Your task to perform on an android device: When is my next meeting? Image 0: 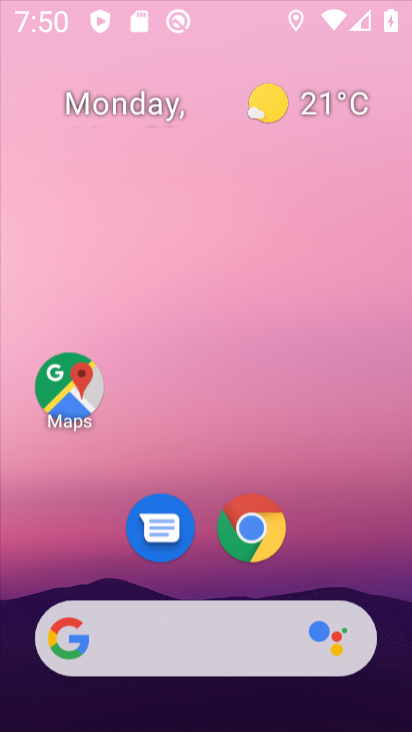
Step 0: click (306, 457)
Your task to perform on an android device: When is my next meeting? Image 1: 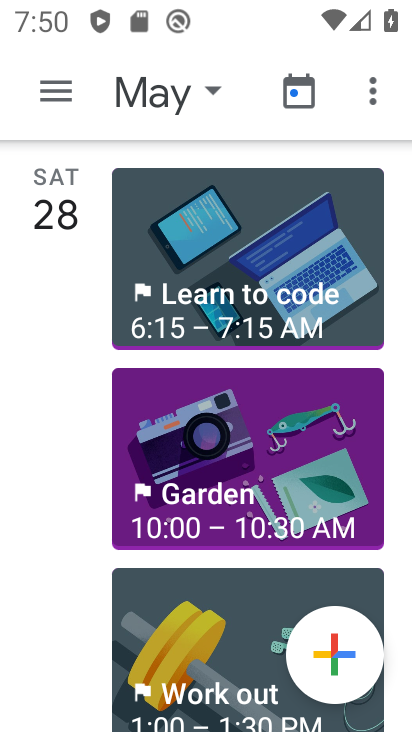
Step 1: click (134, 106)
Your task to perform on an android device: When is my next meeting? Image 2: 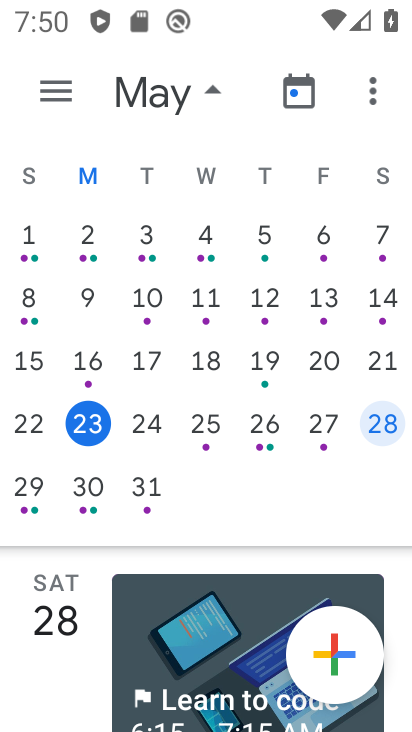
Step 2: click (95, 434)
Your task to perform on an android device: When is my next meeting? Image 3: 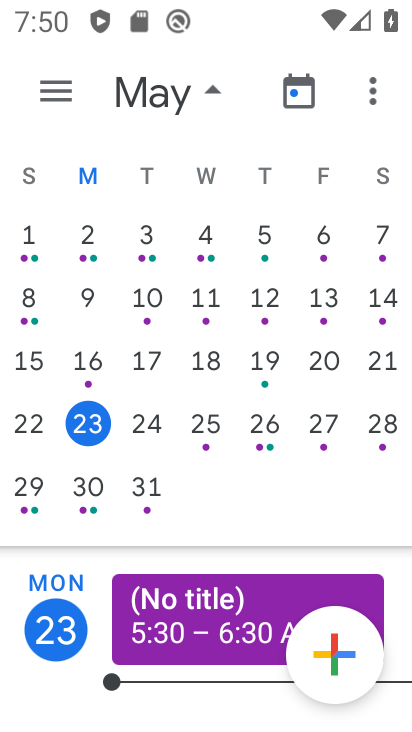
Step 3: task complete